Your task to perform on an android device: Open notification settings Image 0: 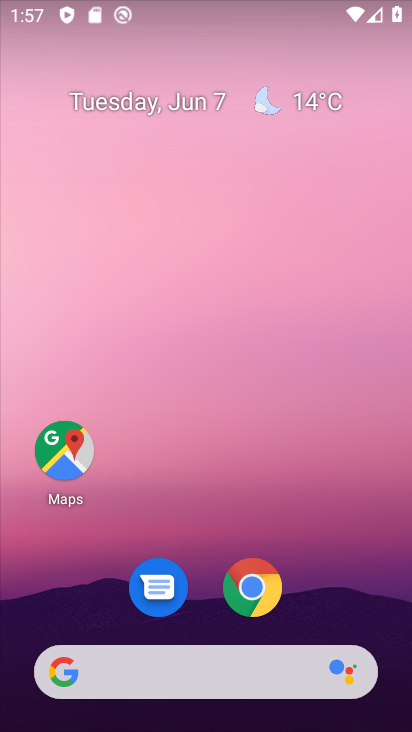
Step 0: drag from (167, 651) to (236, 139)
Your task to perform on an android device: Open notification settings Image 1: 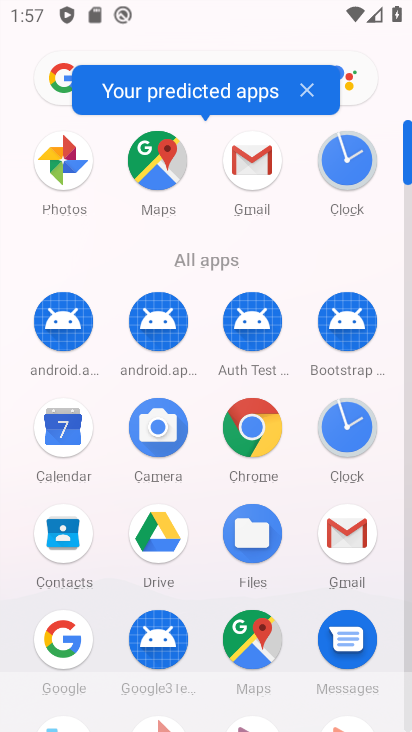
Step 1: drag from (183, 586) to (272, 336)
Your task to perform on an android device: Open notification settings Image 2: 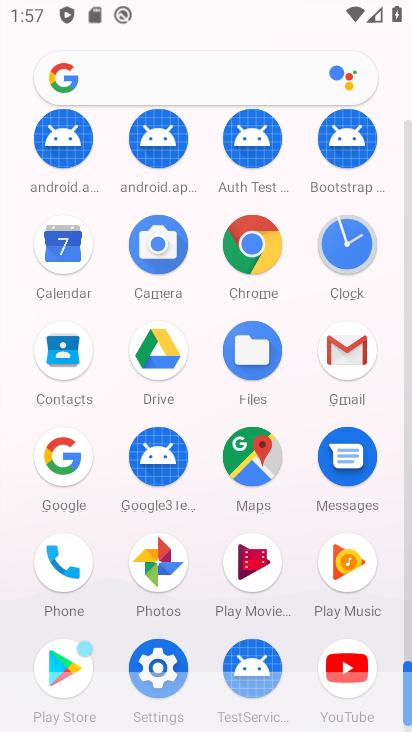
Step 2: click (162, 670)
Your task to perform on an android device: Open notification settings Image 3: 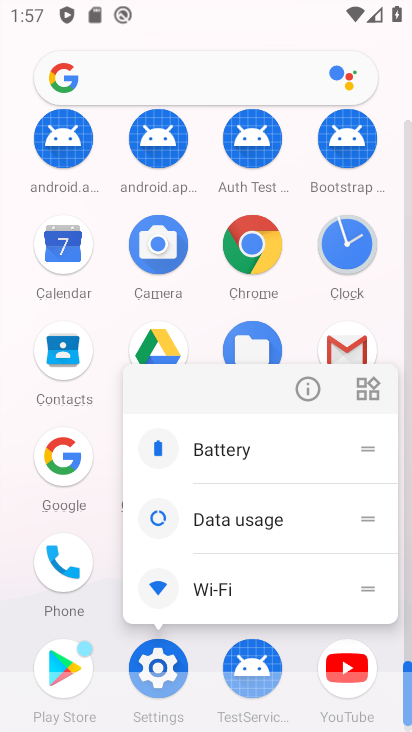
Step 3: click (157, 670)
Your task to perform on an android device: Open notification settings Image 4: 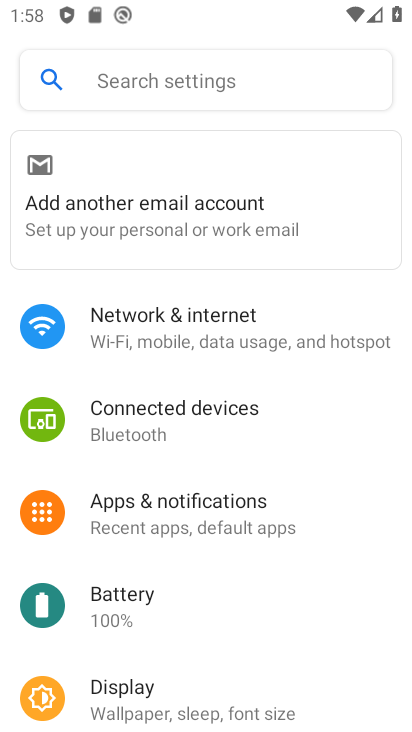
Step 4: click (199, 535)
Your task to perform on an android device: Open notification settings Image 5: 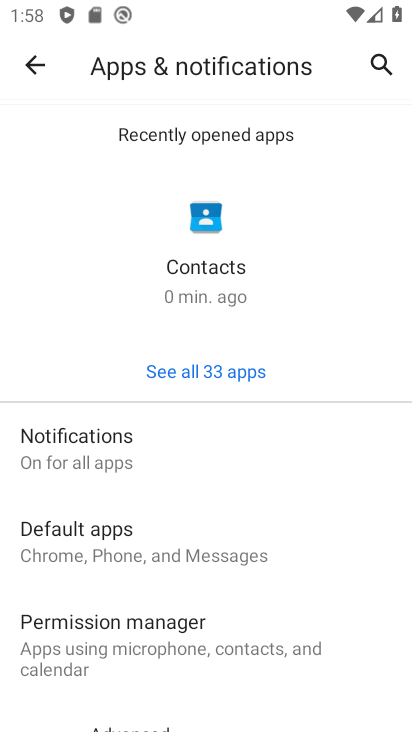
Step 5: task complete